Your task to perform on an android device: Go to ESPN.com Image 0: 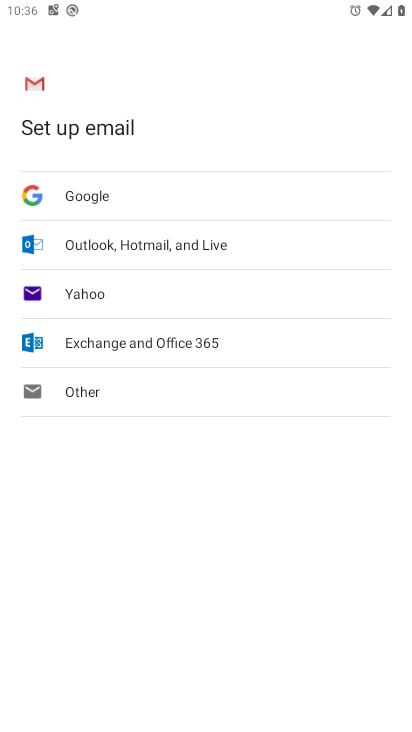
Step 0: press home button
Your task to perform on an android device: Go to ESPN.com Image 1: 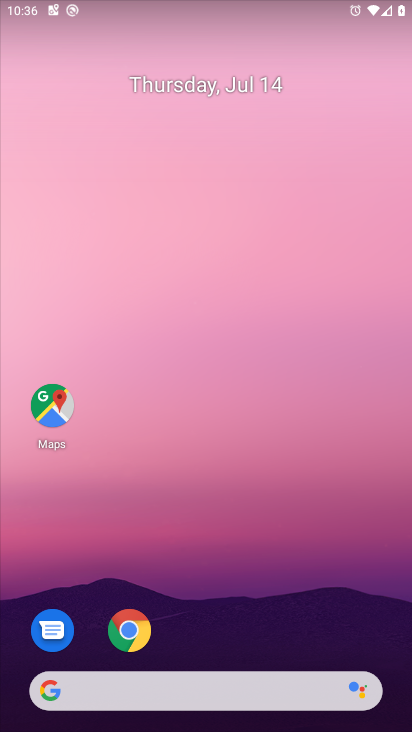
Step 1: click (101, 679)
Your task to perform on an android device: Go to ESPN.com Image 2: 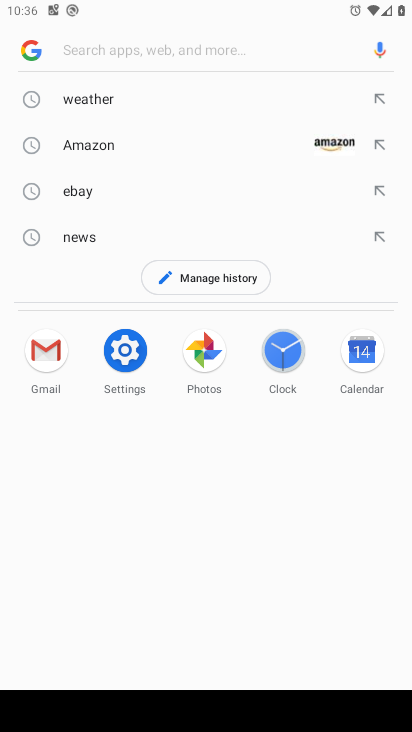
Step 2: type " ESPN.com"
Your task to perform on an android device: Go to ESPN.com Image 3: 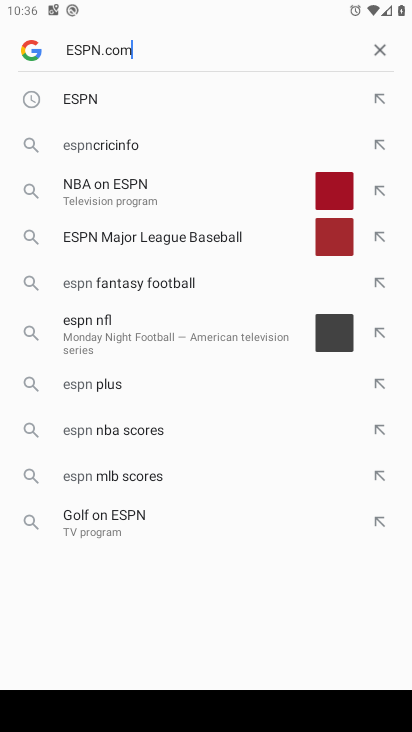
Step 3: type ""
Your task to perform on an android device: Go to ESPN.com Image 4: 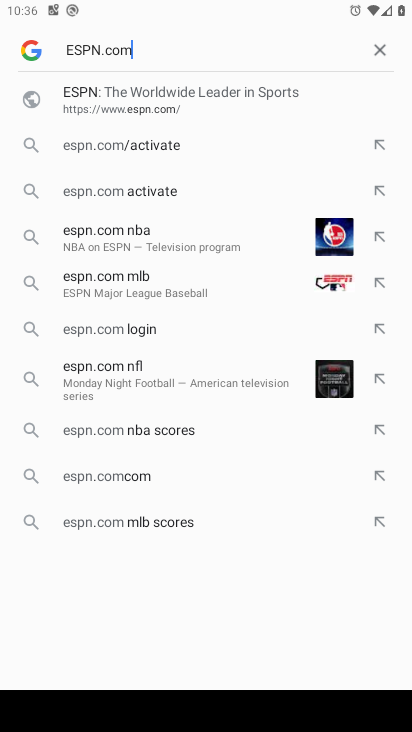
Step 4: click (106, 81)
Your task to perform on an android device: Go to ESPN.com Image 5: 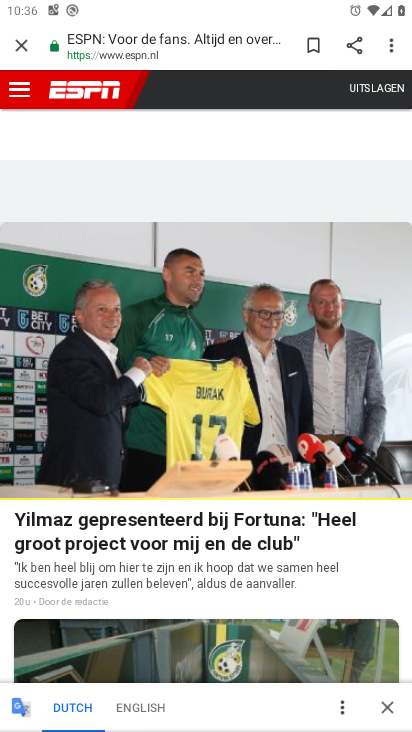
Step 5: task complete